Your task to perform on an android device: Go to sound settings Image 0: 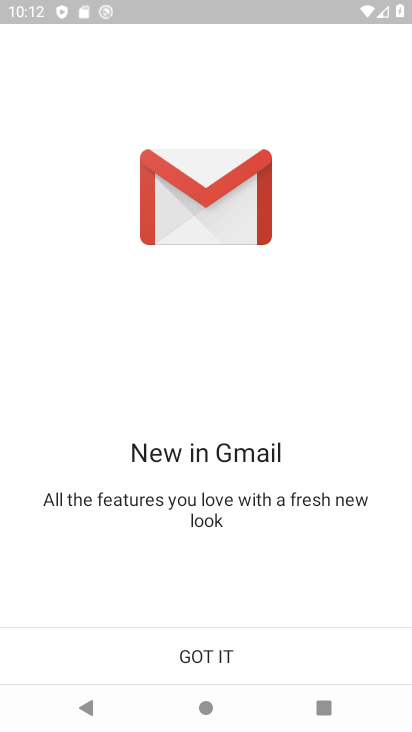
Step 0: press home button
Your task to perform on an android device: Go to sound settings Image 1: 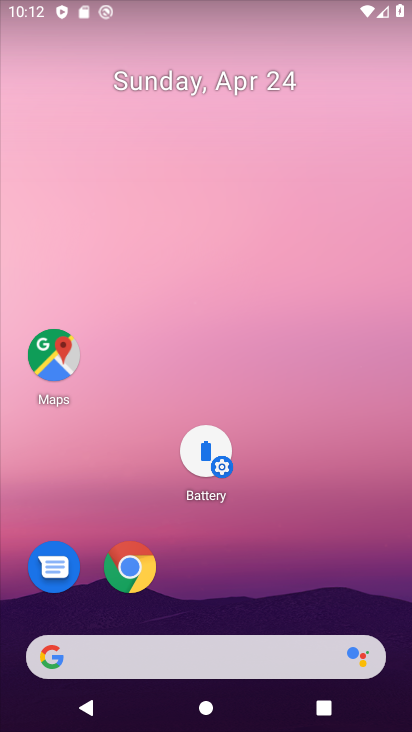
Step 1: drag from (15, 705) to (202, 340)
Your task to perform on an android device: Go to sound settings Image 2: 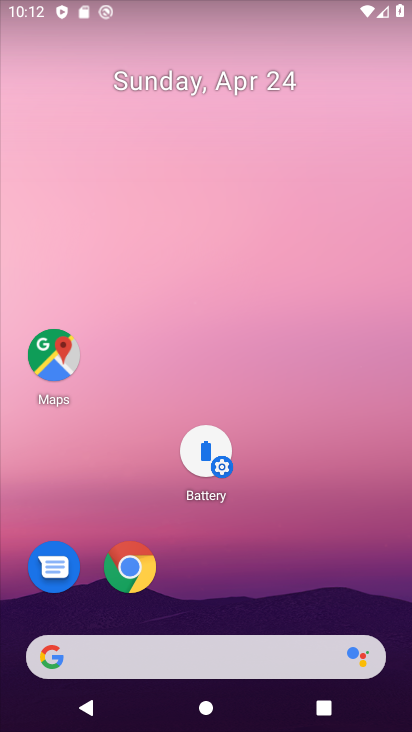
Step 2: drag from (18, 517) to (105, 217)
Your task to perform on an android device: Go to sound settings Image 3: 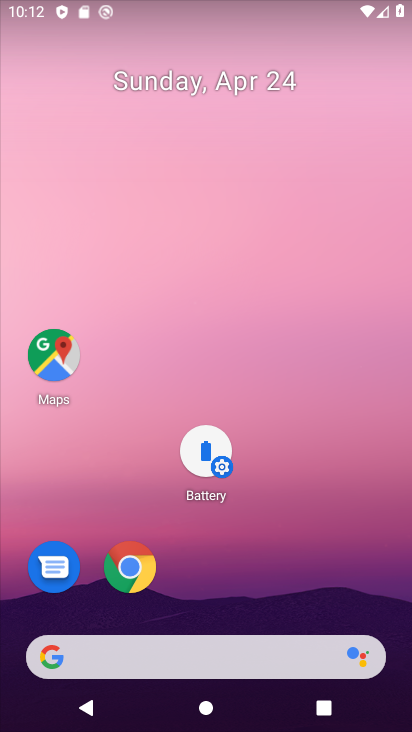
Step 3: drag from (49, 302) to (129, 136)
Your task to perform on an android device: Go to sound settings Image 4: 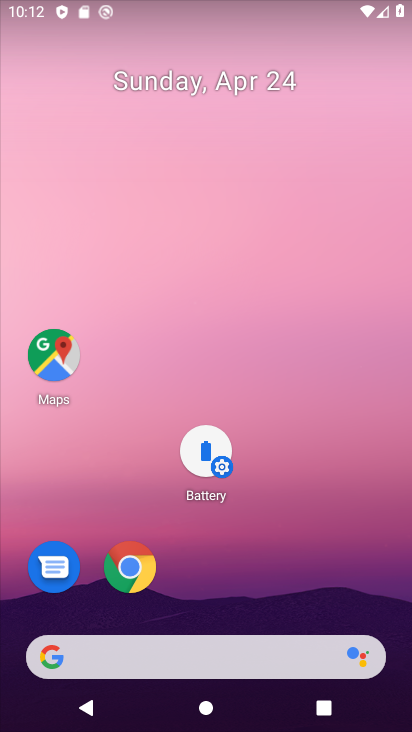
Step 4: drag from (47, 400) to (182, 118)
Your task to perform on an android device: Go to sound settings Image 5: 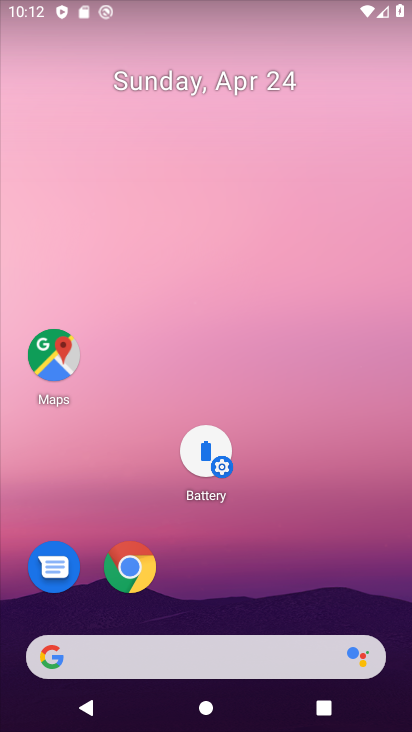
Step 5: drag from (126, 376) to (199, 229)
Your task to perform on an android device: Go to sound settings Image 6: 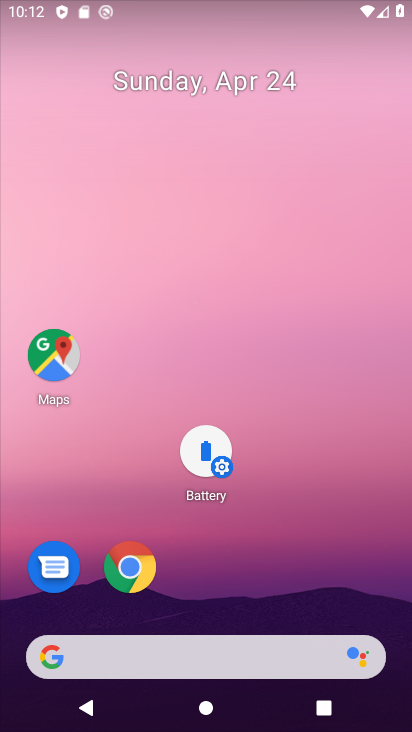
Step 6: drag from (17, 614) to (251, 112)
Your task to perform on an android device: Go to sound settings Image 7: 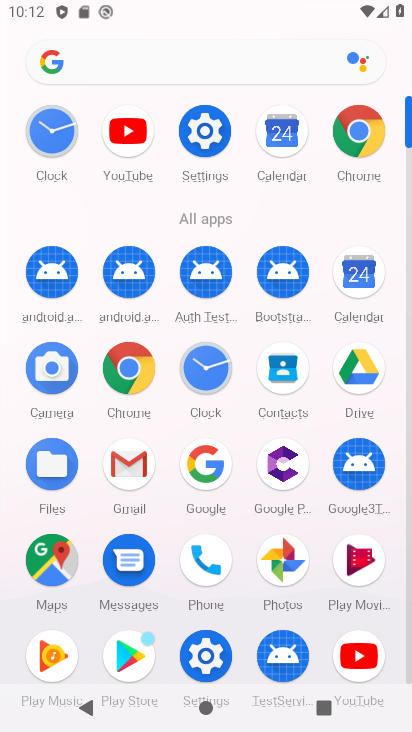
Step 7: click (213, 136)
Your task to perform on an android device: Go to sound settings Image 8: 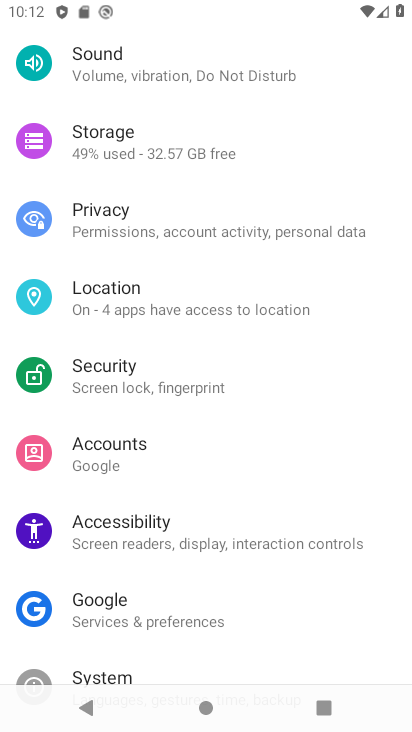
Step 8: click (171, 79)
Your task to perform on an android device: Go to sound settings Image 9: 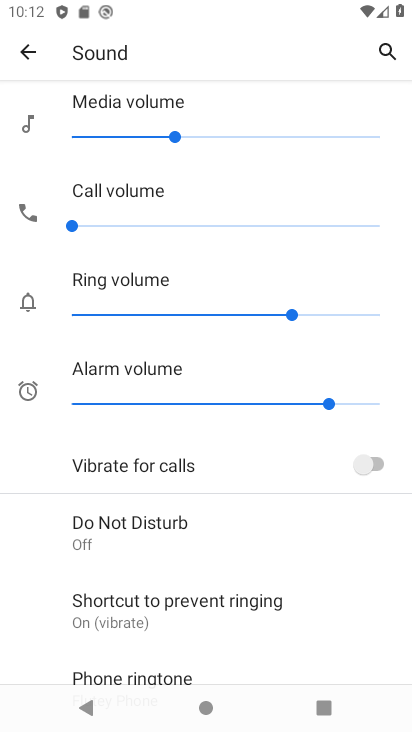
Step 9: task complete